Your task to perform on an android device: change the clock style Image 0: 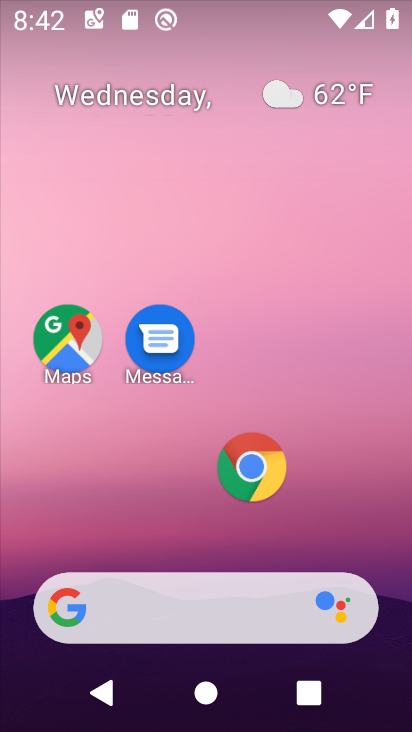
Step 0: drag from (162, 487) to (171, 6)
Your task to perform on an android device: change the clock style Image 1: 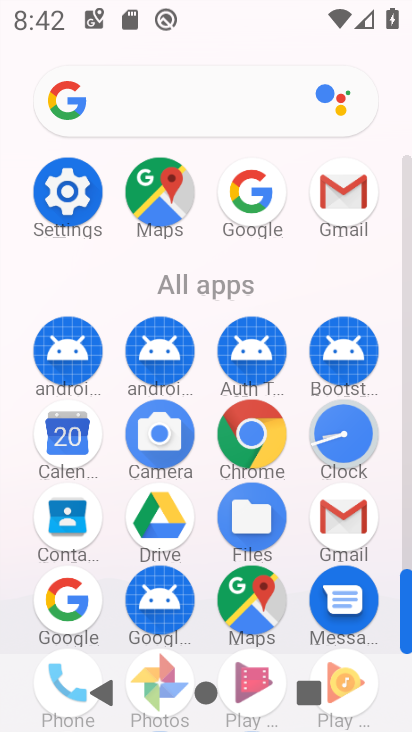
Step 1: click (343, 428)
Your task to perform on an android device: change the clock style Image 2: 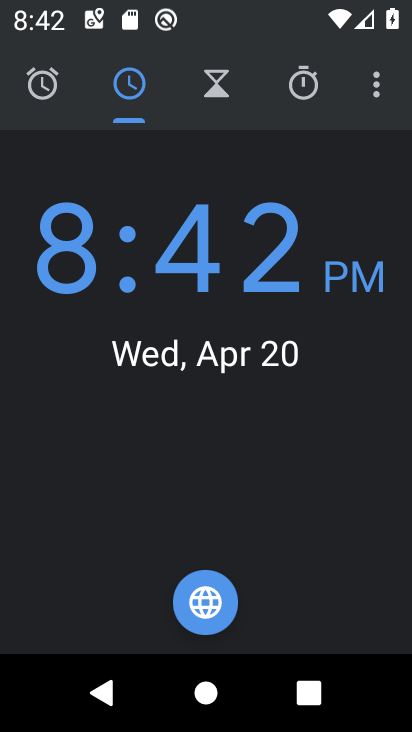
Step 2: click (372, 74)
Your task to perform on an android device: change the clock style Image 3: 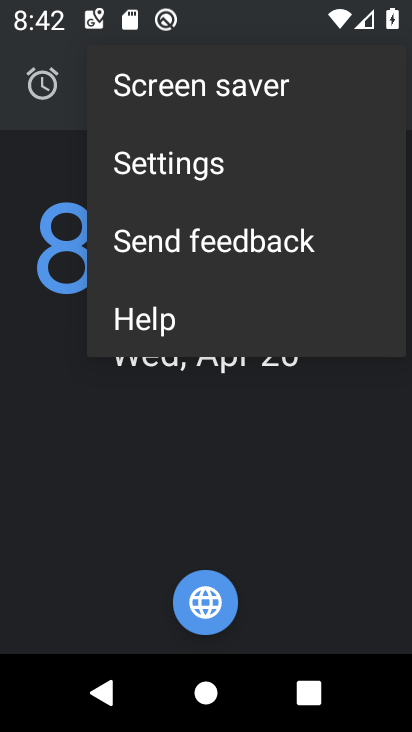
Step 3: click (181, 165)
Your task to perform on an android device: change the clock style Image 4: 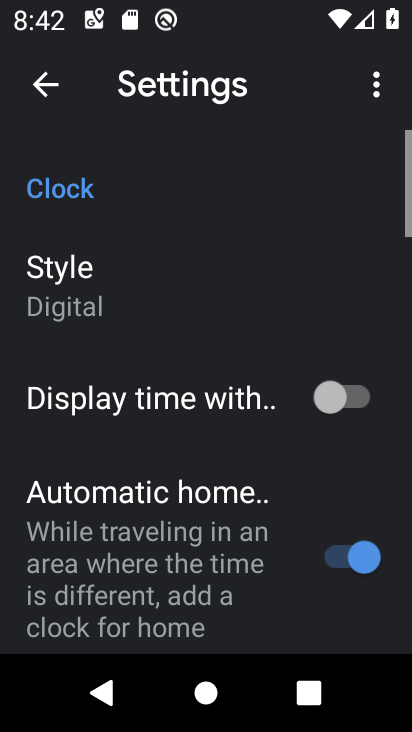
Step 4: click (101, 276)
Your task to perform on an android device: change the clock style Image 5: 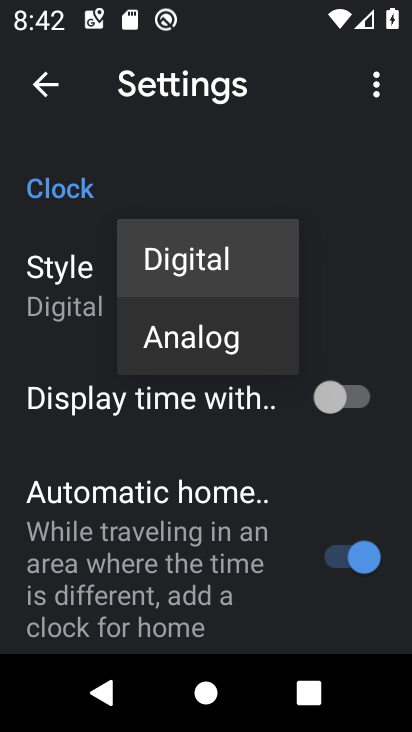
Step 5: click (190, 330)
Your task to perform on an android device: change the clock style Image 6: 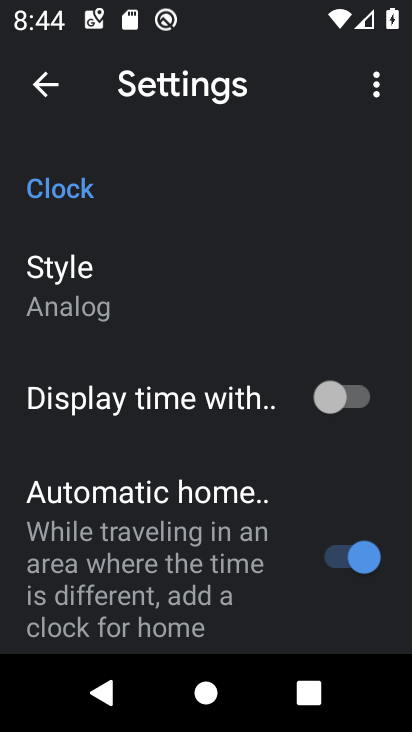
Step 6: task complete